Your task to perform on an android device: show emergency info Image 0: 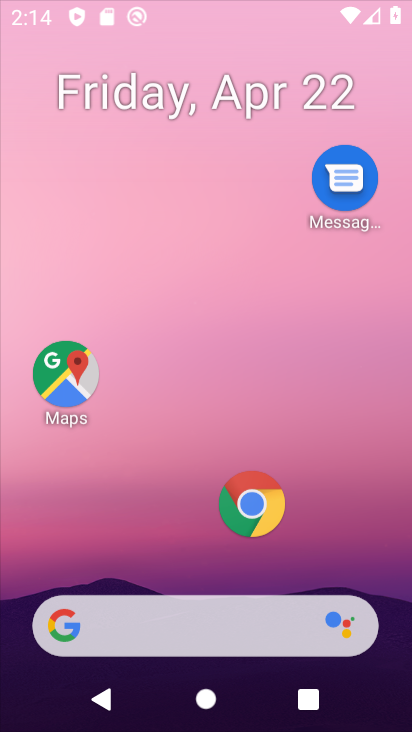
Step 0: click (155, 444)
Your task to perform on an android device: show emergency info Image 1: 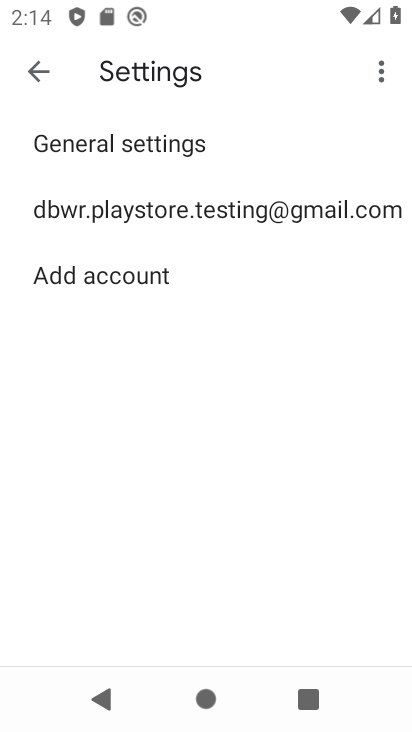
Step 1: press home button
Your task to perform on an android device: show emergency info Image 2: 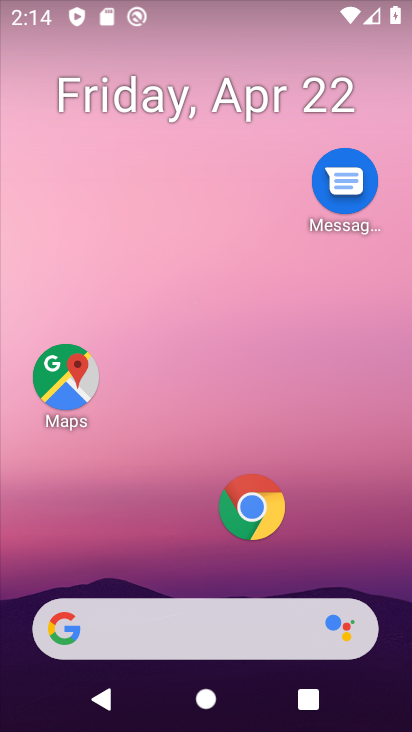
Step 2: drag from (166, 589) to (212, 41)
Your task to perform on an android device: show emergency info Image 3: 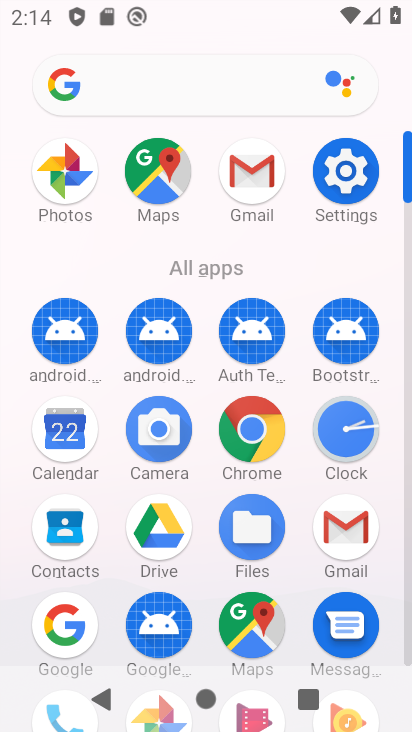
Step 3: drag from (203, 649) to (279, 71)
Your task to perform on an android device: show emergency info Image 4: 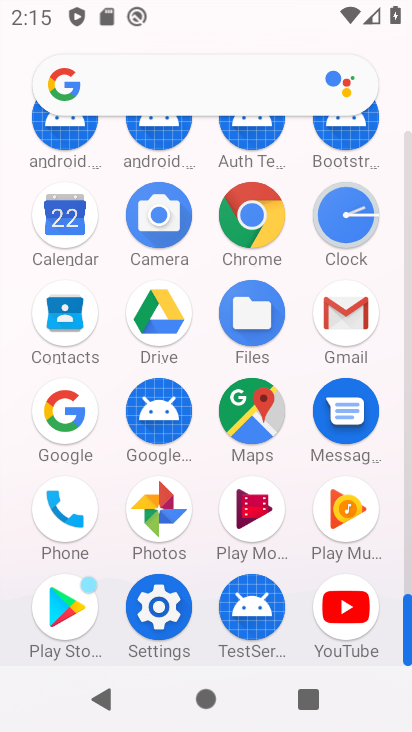
Step 4: click (164, 619)
Your task to perform on an android device: show emergency info Image 5: 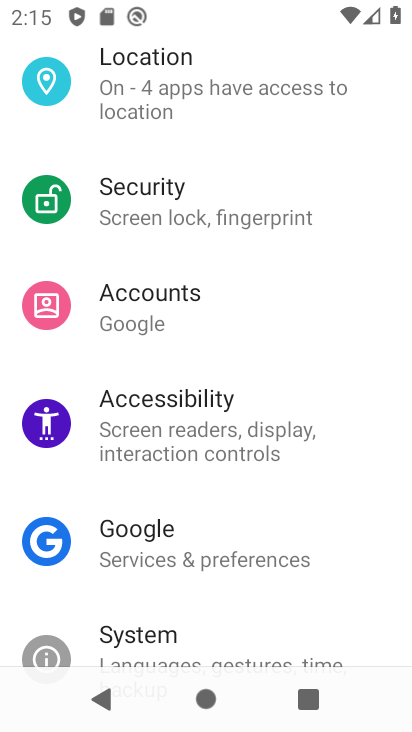
Step 5: drag from (151, 567) to (196, 280)
Your task to perform on an android device: show emergency info Image 6: 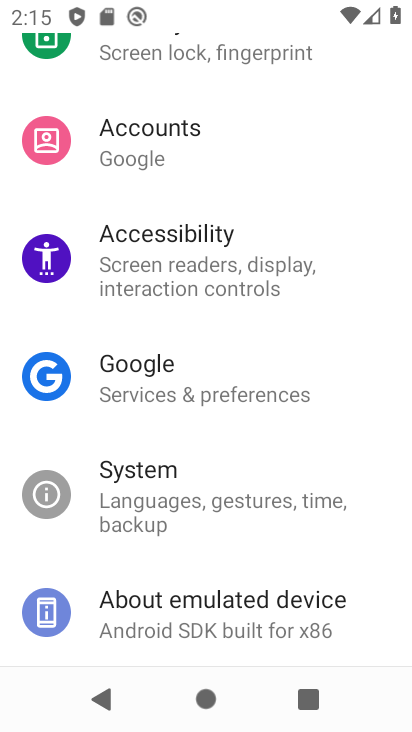
Step 6: click (190, 632)
Your task to perform on an android device: show emergency info Image 7: 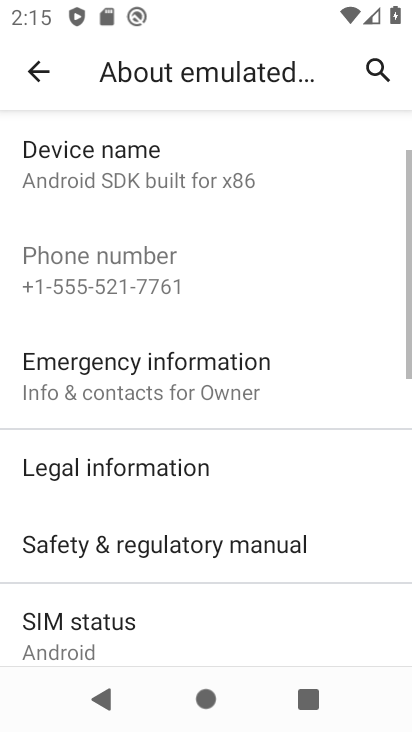
Step 7: click (195, 396)
Your task to perform on an android device: show emergency info Image 8: 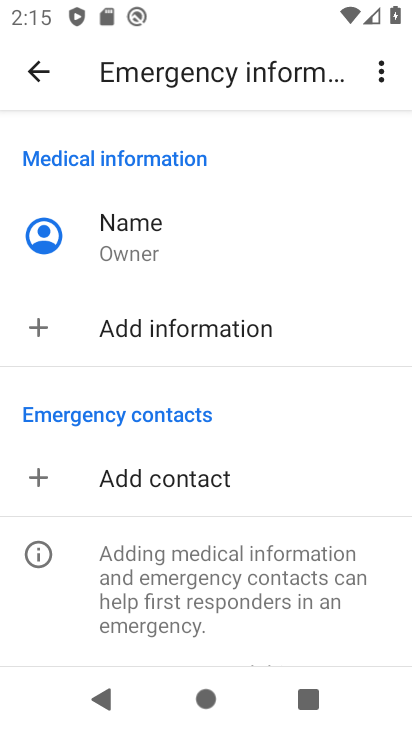
Step 8: task complete